Your task to perform on an android device: see sites visited before in the chrome app Image 0: 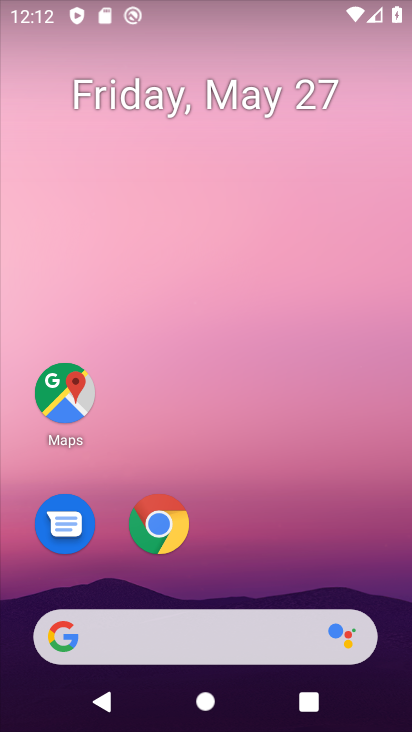
Step 0: click (170, 530)
Your task to perform on an android device: see sites visited before in the chrome app Image 1: 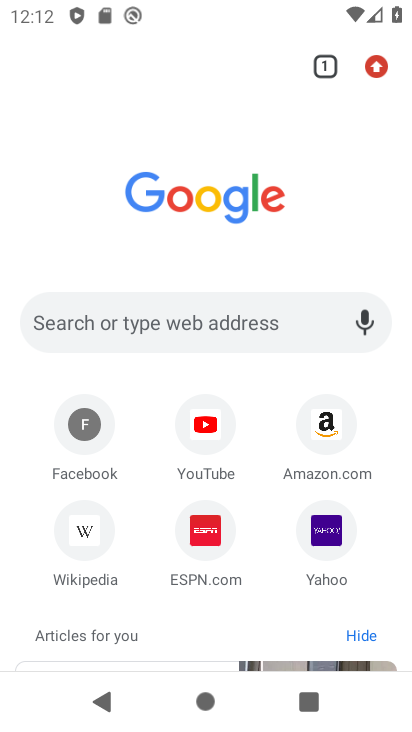
Step 1: click (370, 66)
Your task to perform on an android device: see sites visited before in the chrome app Image 2: 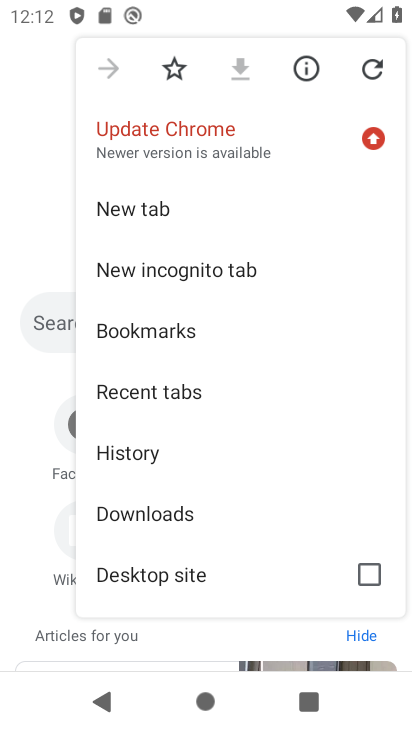
Step 2: click (193, 384)
Your task to perform on an android device: see sites visited before in the chrome app Image 3: 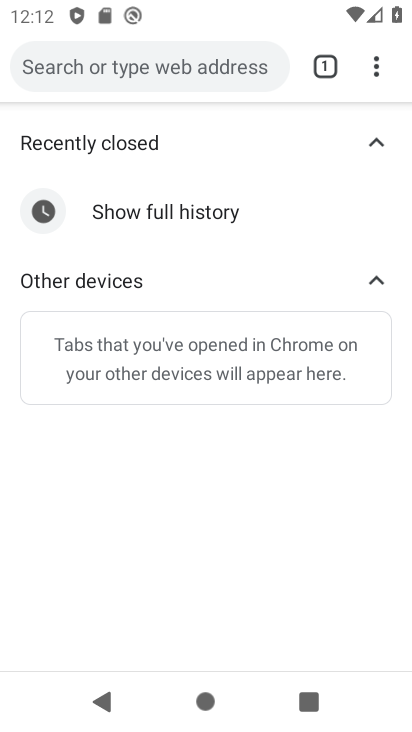
Step 3: task complete